Your task to perform on an android device: Open Youtube and go to "Your channel" Image 0: 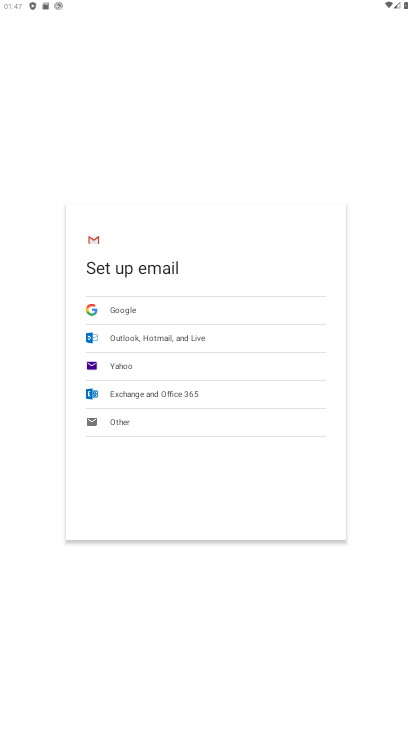
Step 0: press home button
Your task to perform on an android device: Open Youtube and go to "Your channel" Image 1: 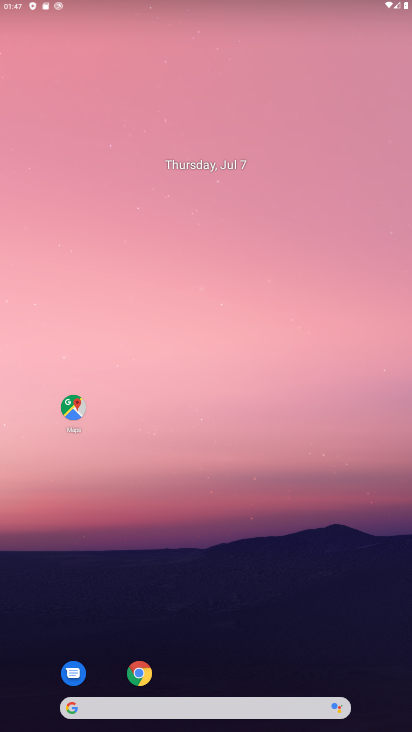
Step 1: drag from (224, 653) to (226, 112)
Your task to perform on an android device: Open Youtube and go to "Your channel" Image 2: 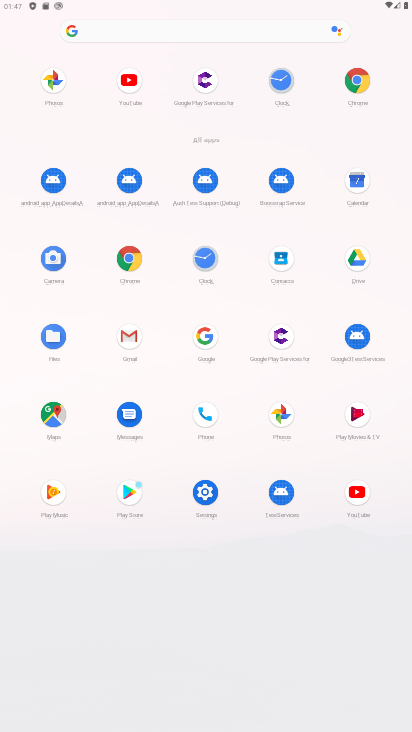
Step 2: click (126, 82)
Your task to perform on an android device: Open Youtube and go to "Your channel" Image 3: 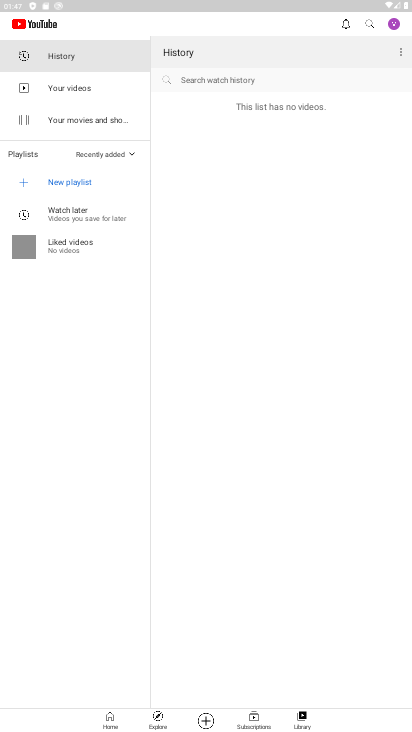
Step 3: click (393, 24)
Your task to perform on an android device: Open Youtube and go to "Your channel" Image 4: 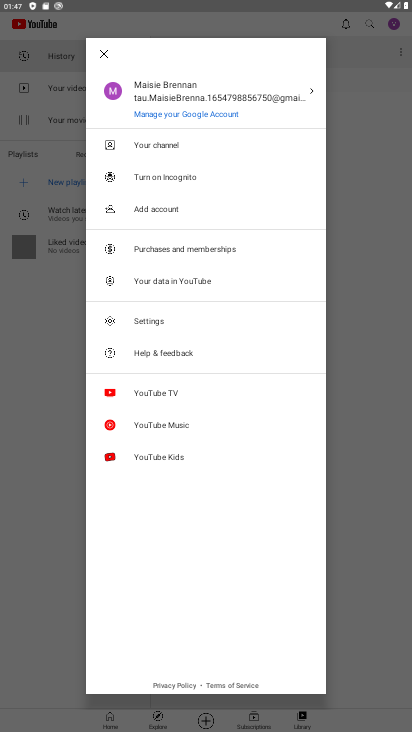
Step 4: click (192, 145)
Your task to perform on an android device: Open Youtube and go to "Your channel" Image 5: 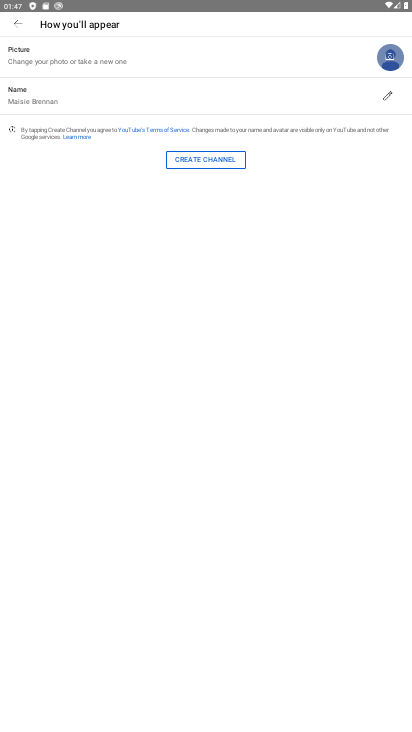
Step 5: task complete